Your task to perform on an android device: visit the assistant section in the google photos Image 0: 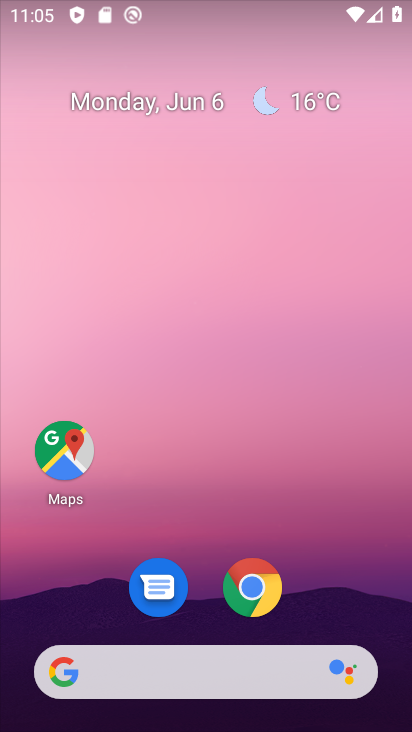
Step 0: drag from (346, 563) to (287, 25)
Your task to perform on an android device: visit the assistant section in the google photos Image 1: 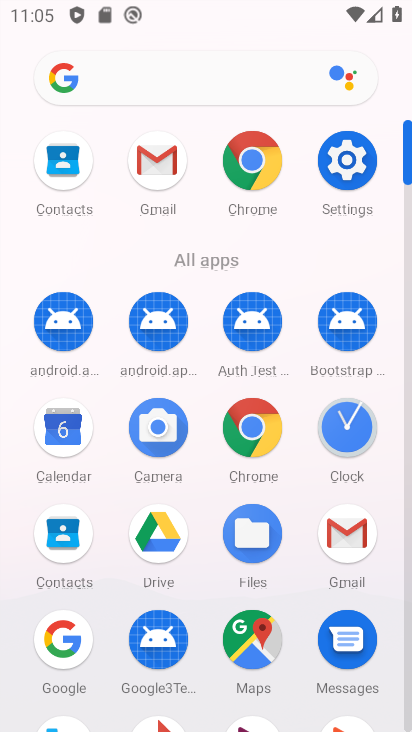
Step 1: drag from (9, 475) to (13, 149)
Your task to perform on an android device: visit the assistant section in the google photos Image 2: 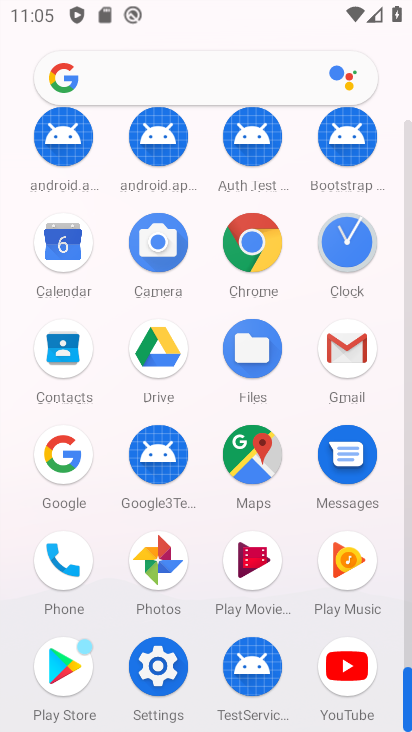
Step 2: click (158, 556)
Your task to perform on an android device: visit the assistant section in the google photos Image 3: 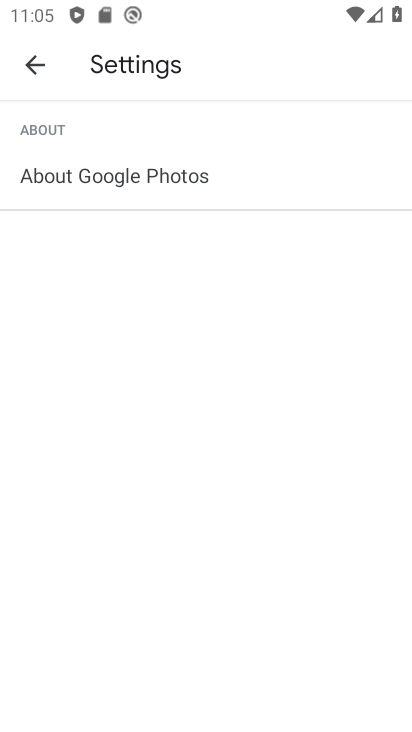
Step 3: click (32, 65)
Your task to perform on an android device: visit the assistant section in the google photos Image 4: 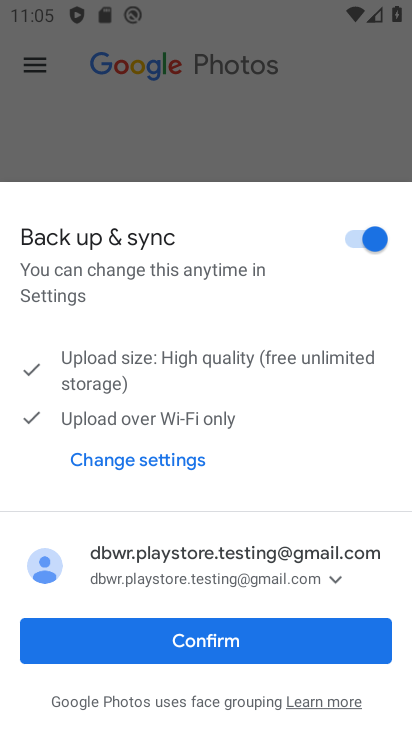
Step 4: click (200, 647)
Your task to perform on an android device: visit the assistant section in the google photos Image 5: 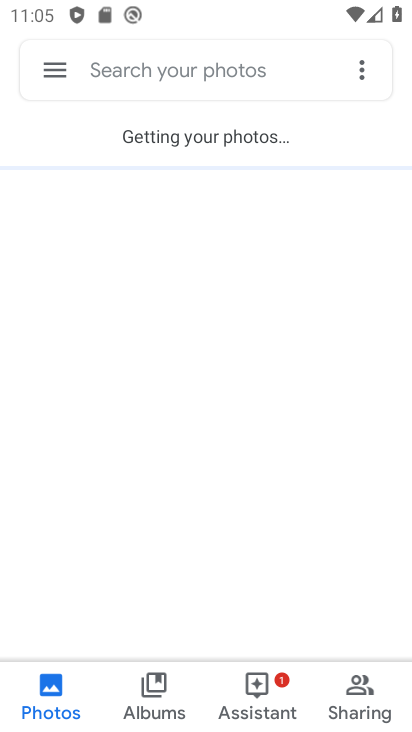
Step 5: click (273, 691)
Your task to perform on an android device: visit the assistant section in the google photos Image 6: 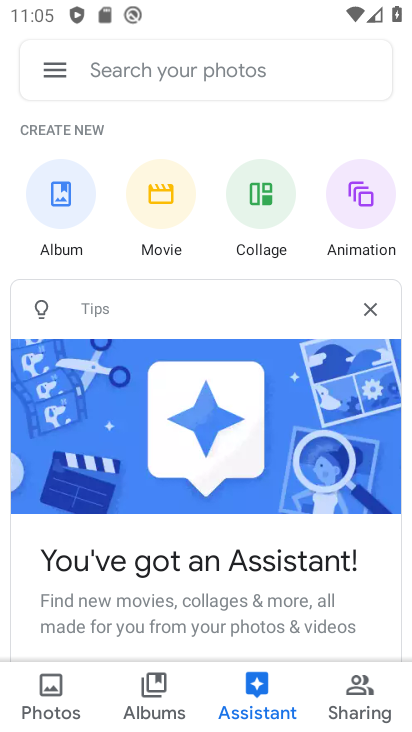
Step 6: task complete